Your task to perform on an android device: set default search engine in the chrome app Image 0: 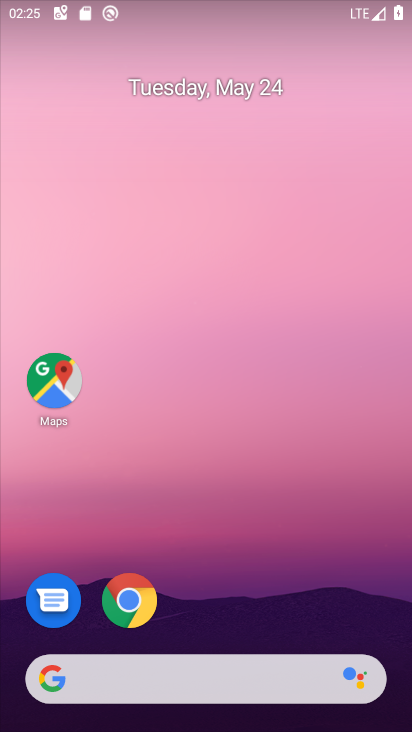
Step 0: click (173, 601)
Your task to perform on an android device: set default search engine in the chrome app Image 1: 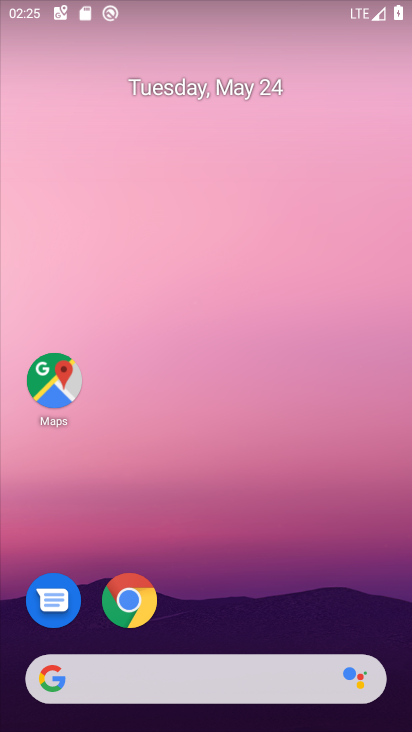
Step 1: click (139, 609)
Your task to perform on an android device: set default search engine in the chrome app Image 2: 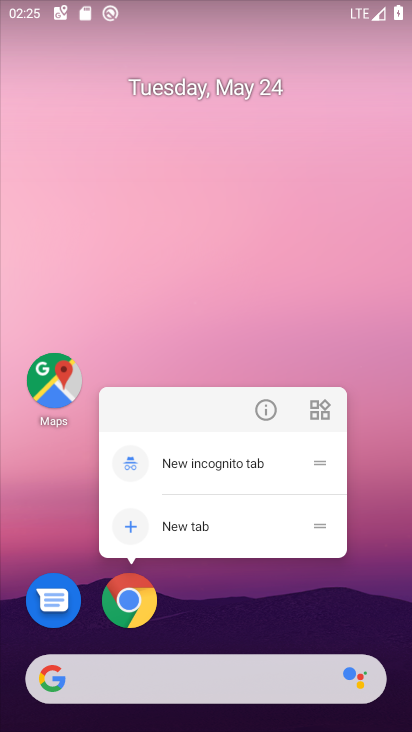
Step 2: click (139, 609)
Your task to perform on an android device: set default search engine in the chrome app Image 3: 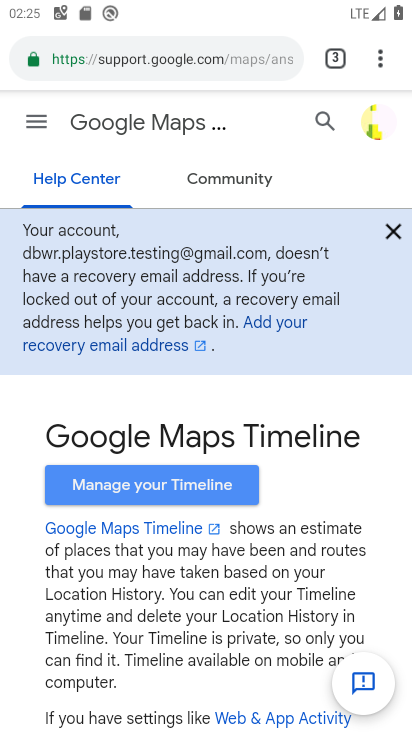
Step 3: click (373, 71)
Your task to perform on an android device: set default search engine in the chrome app Image 4: 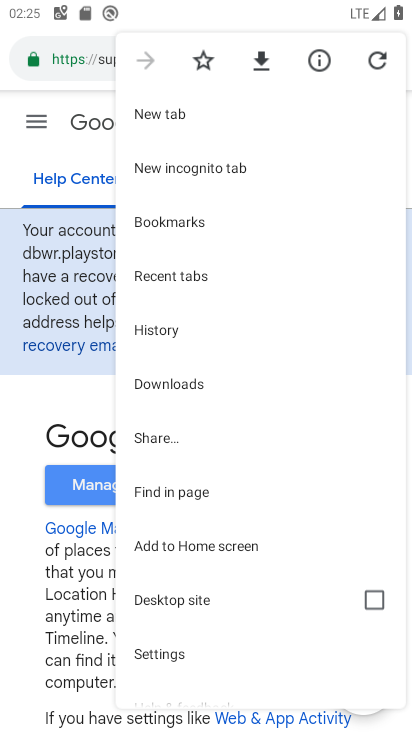
Step 4: drag from (295, 519) to (285, 297)
Your task to perform on an android device: set default search engine in the chrome app Image 5: 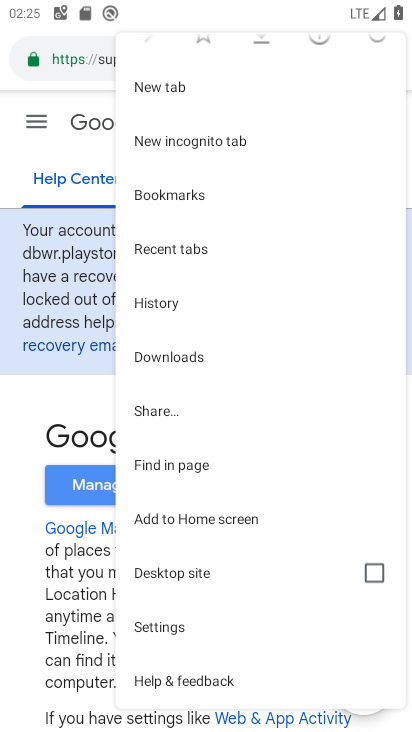
Step 5: click (197, 627)
Your task to perform on an android device: set default search engine in the chrome app Image 6: 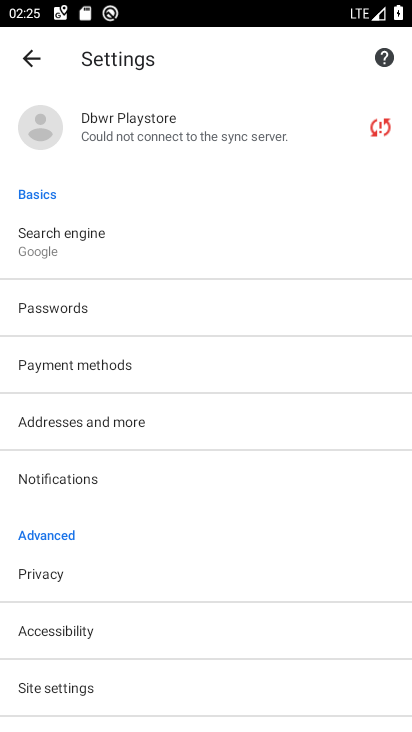
Step 6: drag from (218, 577) to (267, 185)
Your task to perform on an android device: set default search engine in the chrome app Image 7: 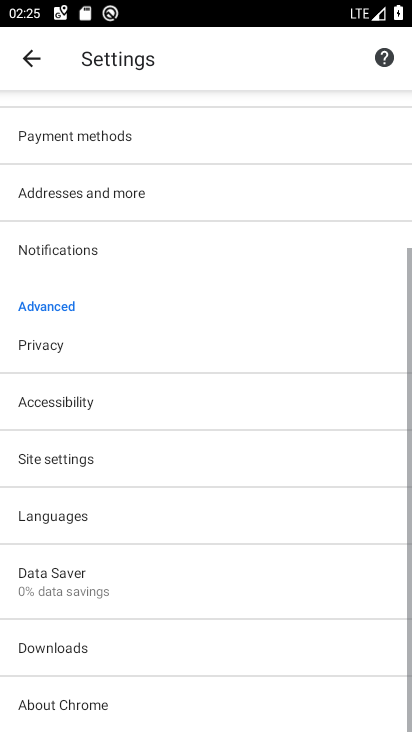
Step 7: drag from (276, 617) to (309, 369)
Your task to perform on an android device: set default search engine in the chrome app Image 8: 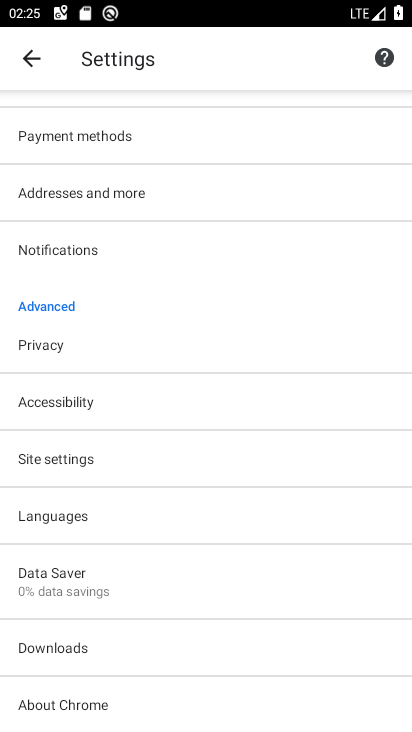
Step 8: click (156, 700)
Your task to perform on an android device: set default search engine in the chrome app Image 9: 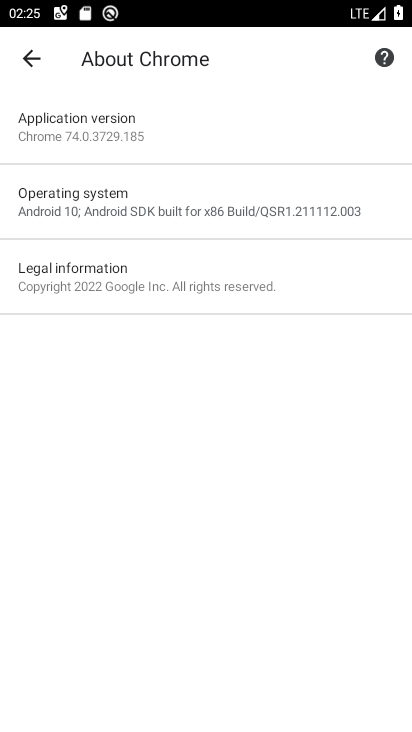
Step 9: press back button
Your task to perform on an android device: set default search engine in the chrome app Image 10: 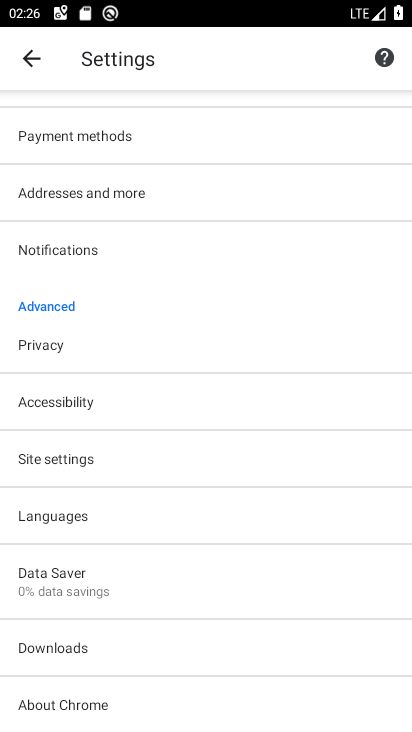
Step 10: drag from (112, 315) to (231, 626)
Your task to perform on an android device: set default search engine in the chrome app Image 11: 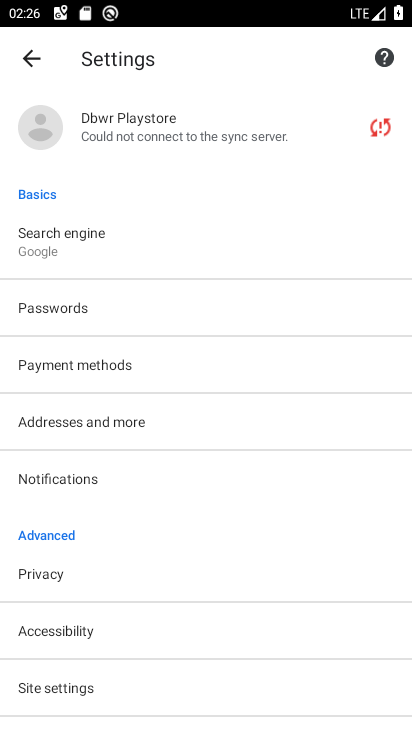
Step 11: click (290, 580)
Your task to perform on an android device: set default search engine in the chrome app Image 12: 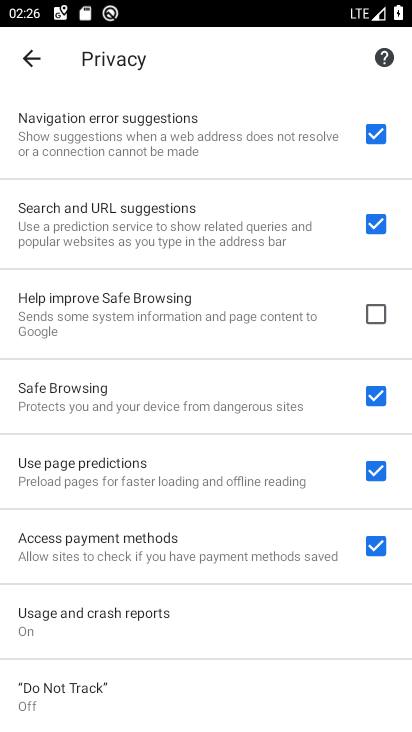
Step 12: task complete